Your task to perform on an android device: Open settings Image 0: 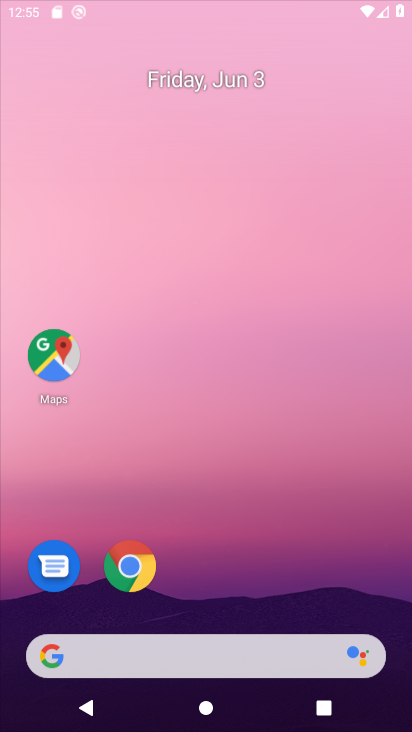
Step 0: click (187, 472)
Your task to perform on an android device: Open settings Image 1: 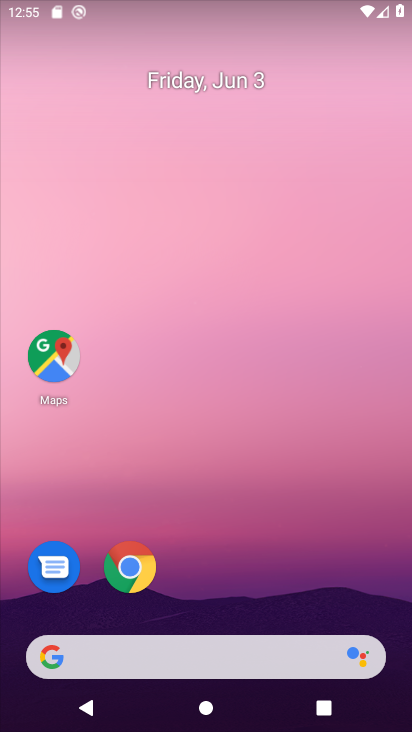
Step 1: drag from (236, 586) to (239, 304)
Your task to perform on an android device: Open settings Image 2: 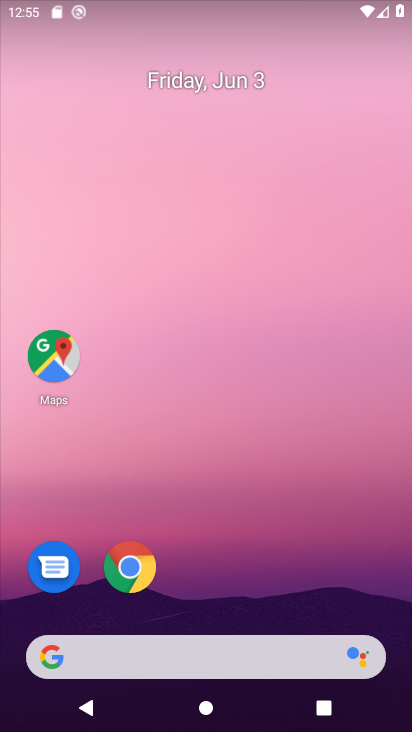
Step 2: drag from (244, 625) to (253, 330)
Your task to perform on an android device: Open settings Image 3: 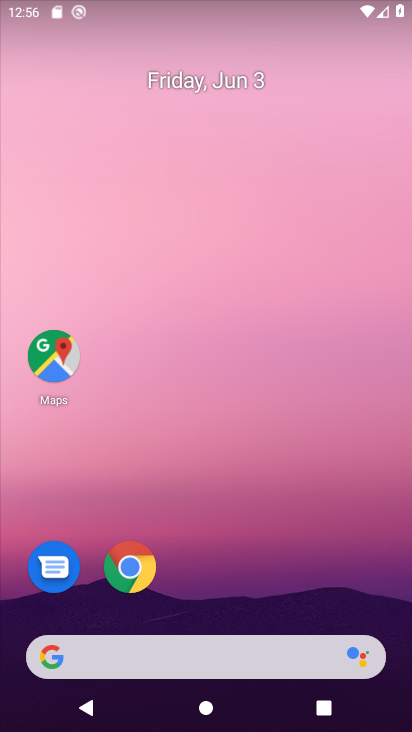
Step 3: drag from (217, 623) to (261, 285)
Your task to perform on an android device: Open settings Image 4: 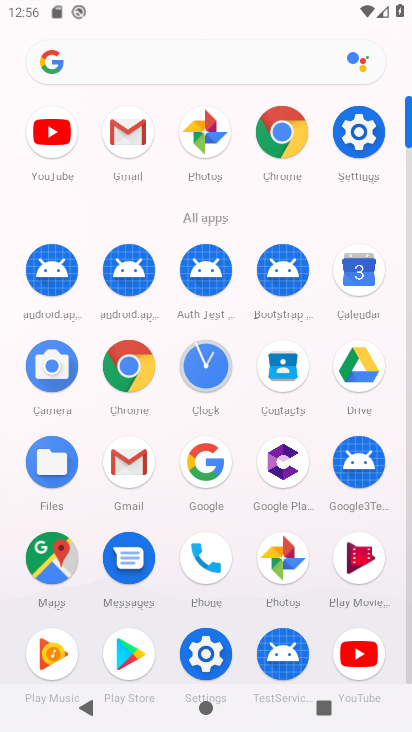
Step 4: click (353, 118)
Your task to perform on an android device: Open settings Image 5: 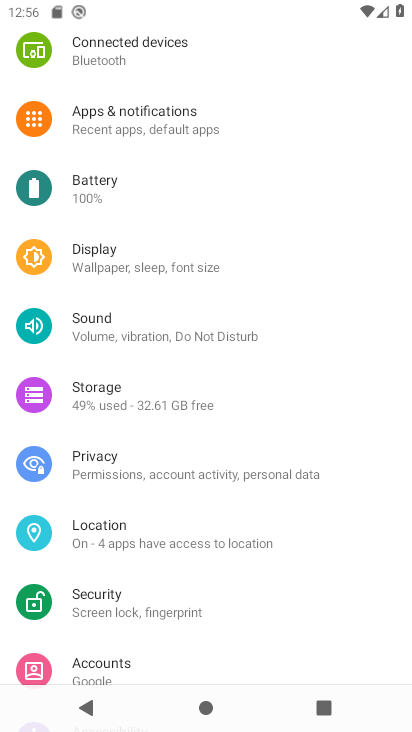
Step 5: task complete